Your task to perform on an android device: Open Amazon Image 0: 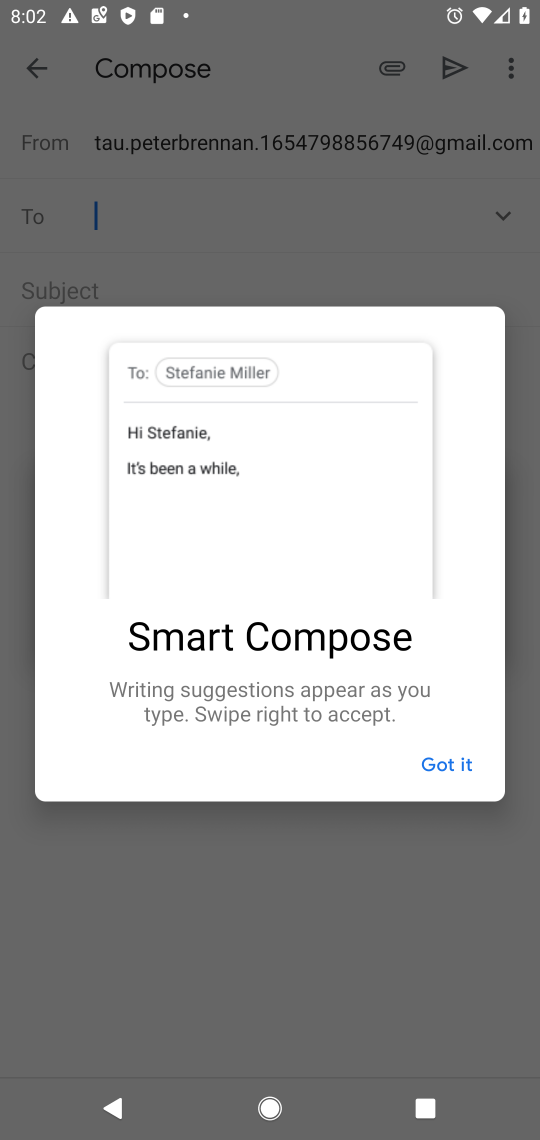
Step 0: press home button
Your task to perform on an android device: Open Amazon Image 1: 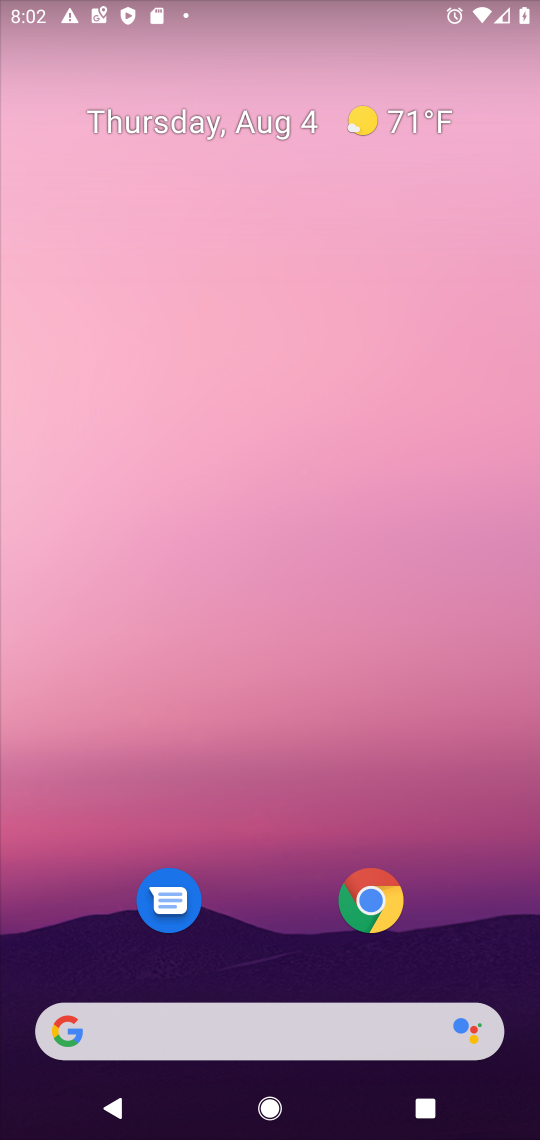
Step 1: click (365, 904)
Your task to perform on an android device: Open Amazon Image 2: 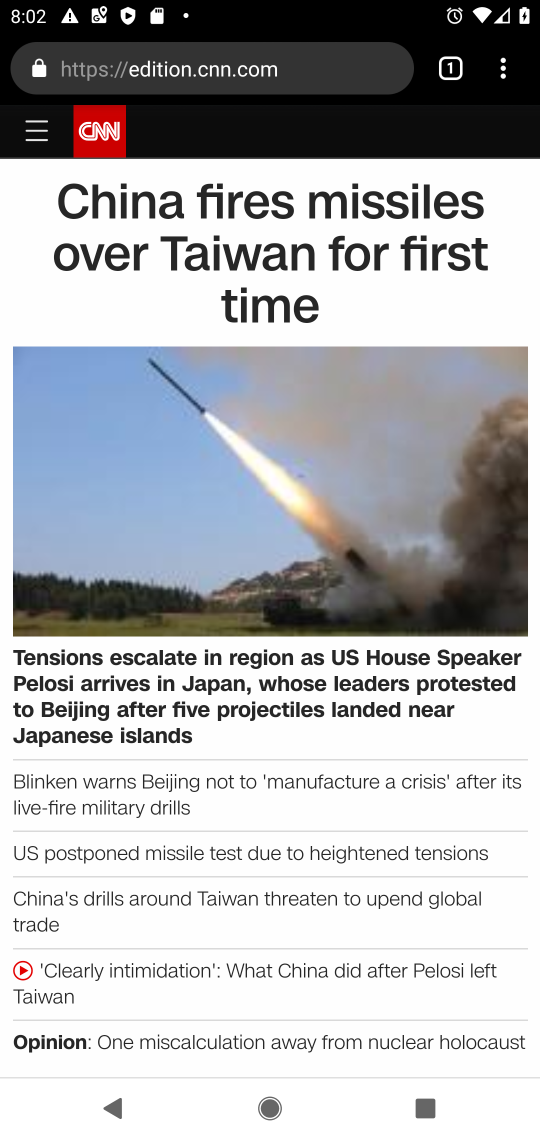
Step 2: click (306, 80)
Your task to perform on an android device: Open Amazon Image 3: 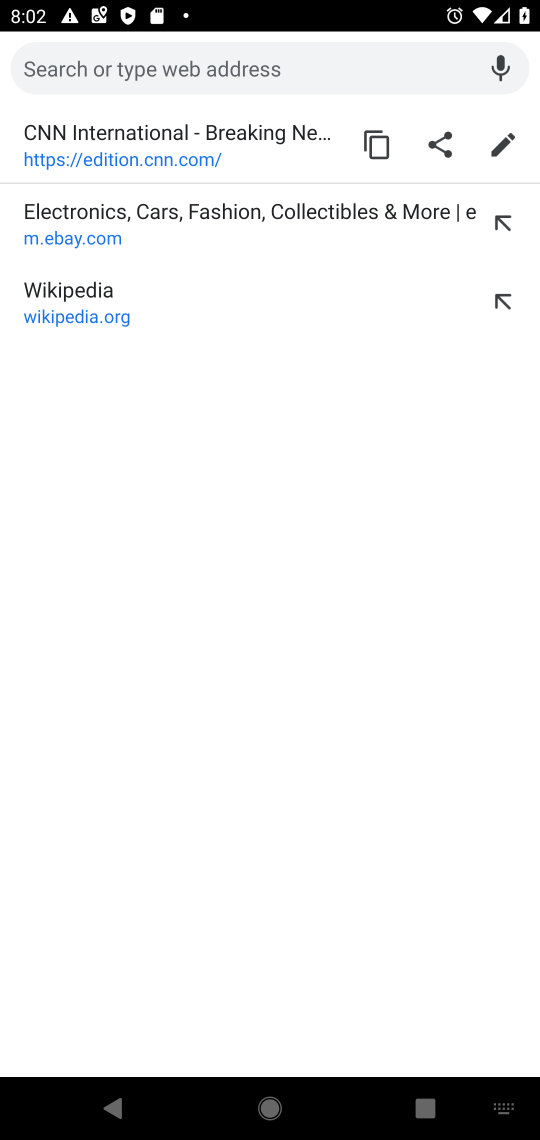
Step 3: type "Amazon"
Your task to perform on an android device: Open Amazon Image 4: 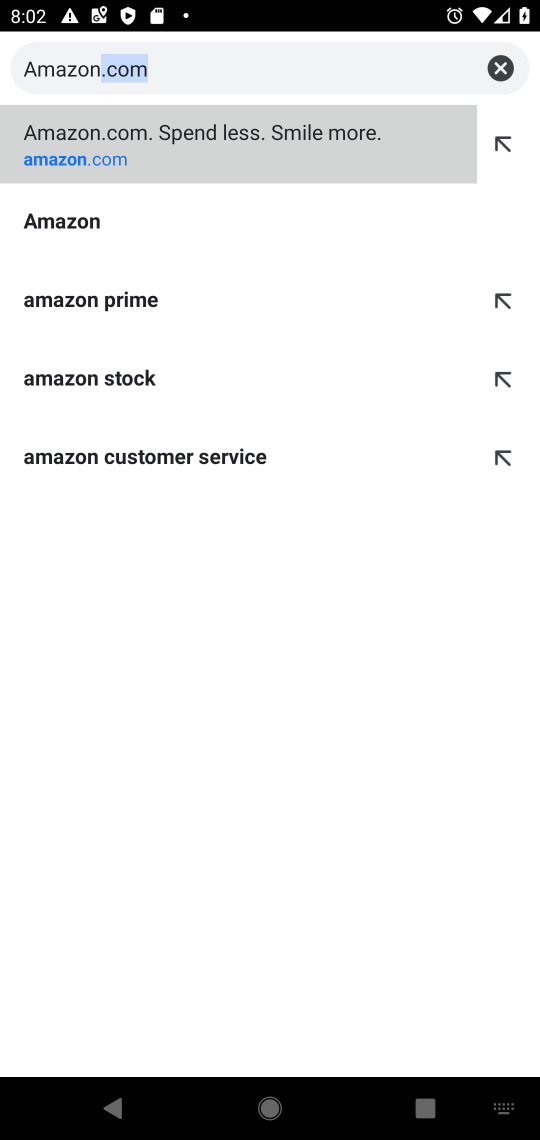
Step 4: click (96, 225)
Your task to perform on an android device: Open Amazon Image 5: 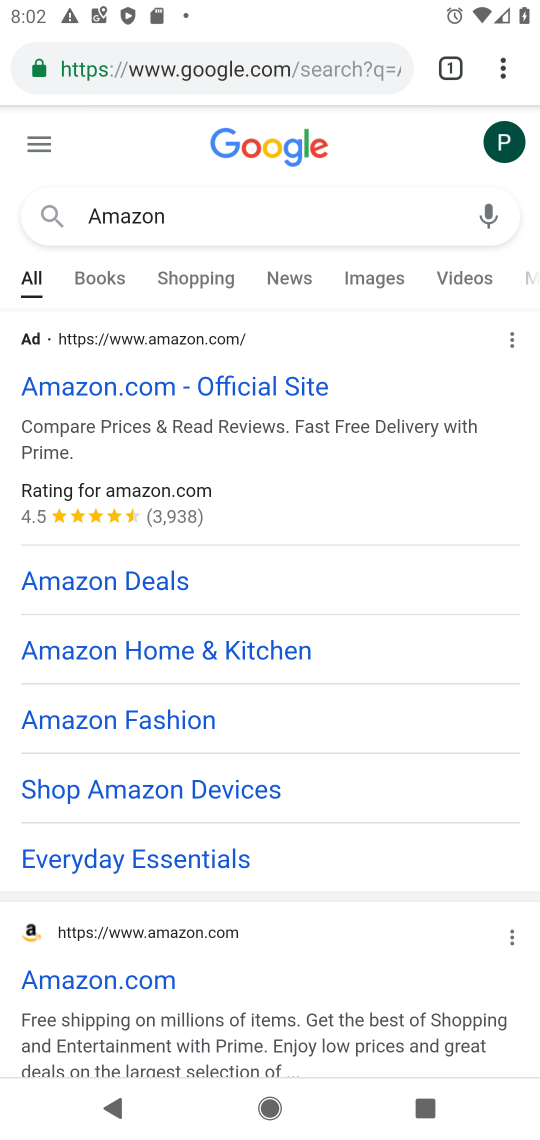
Step 5: click (134, 983)
Your task to perform on an android device: Open Amazon Image 6: 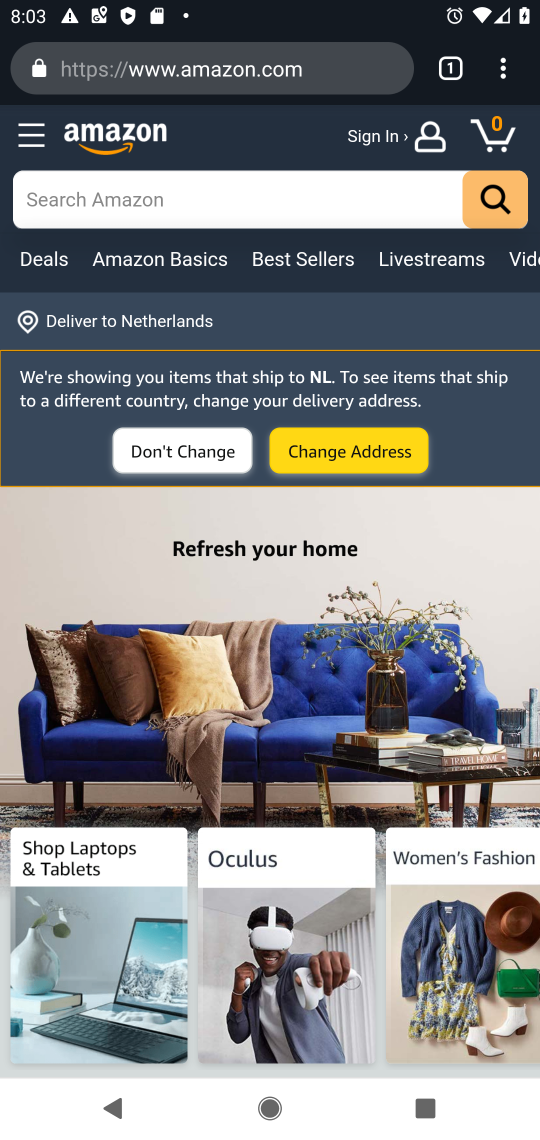
Step 6: task complete